Your task to perform on an android device: turn off location Image 0: 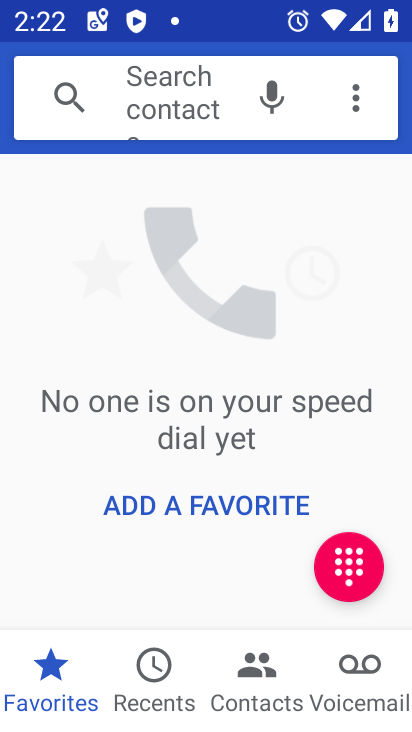
Step 0: press home button
Your task to perform on an android device: turn off location Image 1: 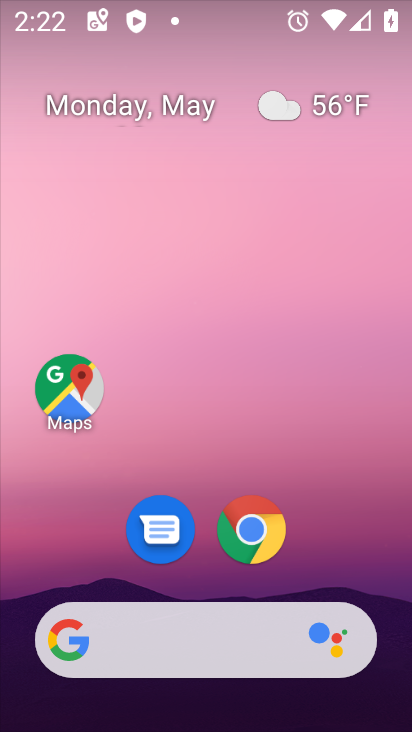
Step 1: drag from (317, 564) to (314, 70)
Your task to perform on an android device: turn off location Image 2: 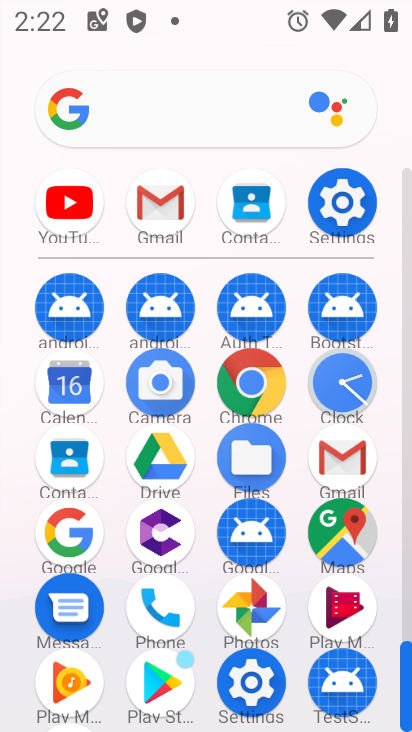
Step 2: click (237, 689)
Your task to perform on an android device: turn off location Image 3: 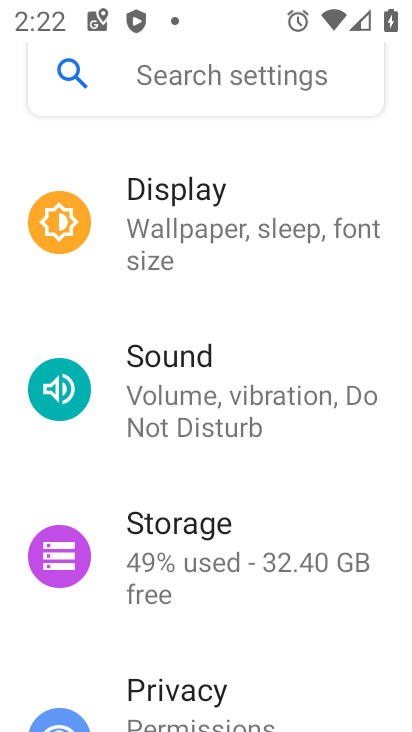
Step 3: drag from (260, 661) to (253, 478)
Your task to perform on an android device: turn off location Image 4: 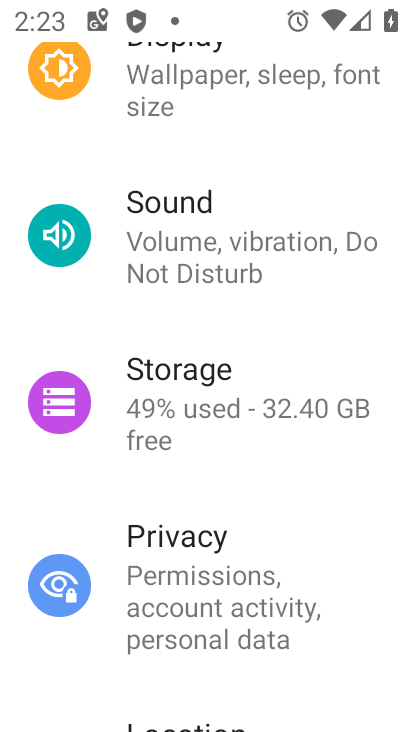
Step 4: drag from (246, 590) to (202, 384)
Your task to perform on an android device: turn off location Image 5: 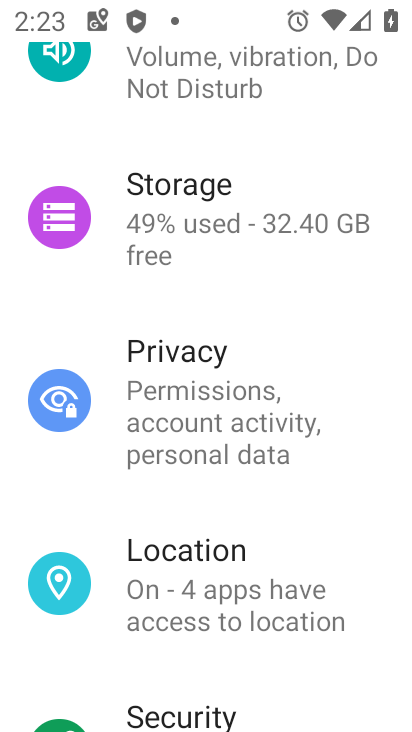
Step 5: click (190, 605)
Your task to perform on an android device: turn off location Image 6: 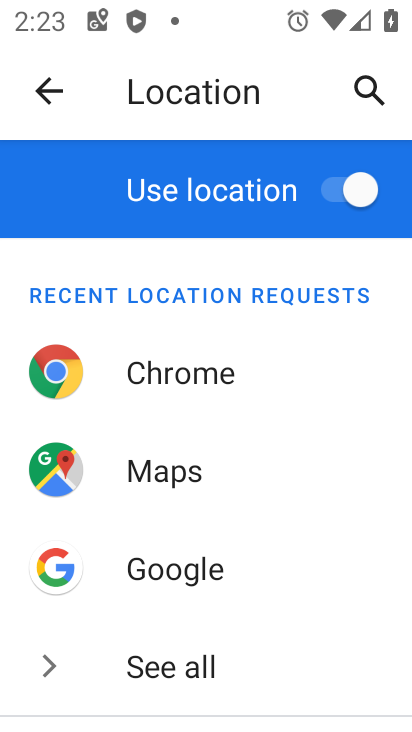
Step 6: click (327, 173)
Your task to perform on an android device: turn off location Image 7: 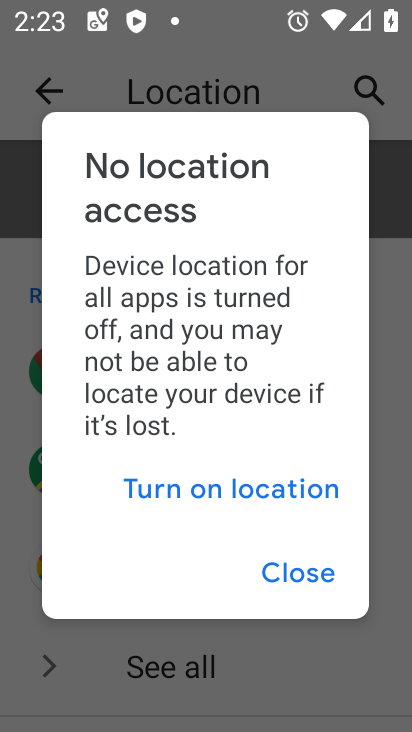
Step 7: task complete